Your task to perform on an android device: Open network settings Image 0: 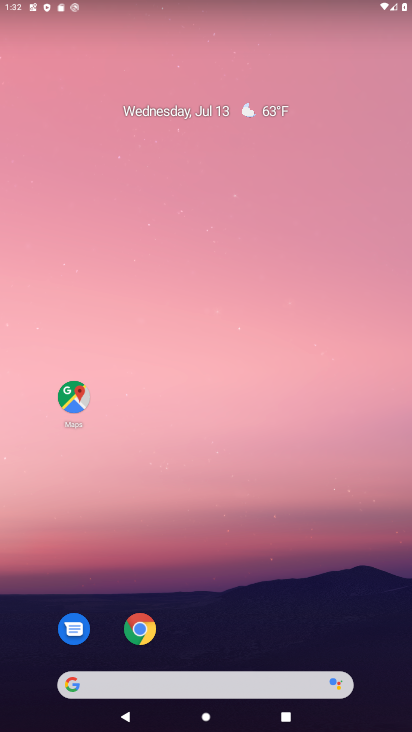
Step 0: drag from (208, 634) to (205, 281)
Your task to perform on an android device: Open network settings Image 1: 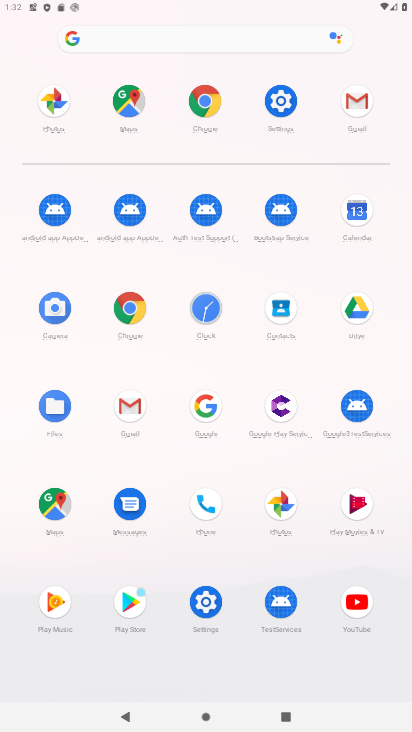
Step 1: click (282, 99)
Your task to perform on an android device: Open network settings Image 2: 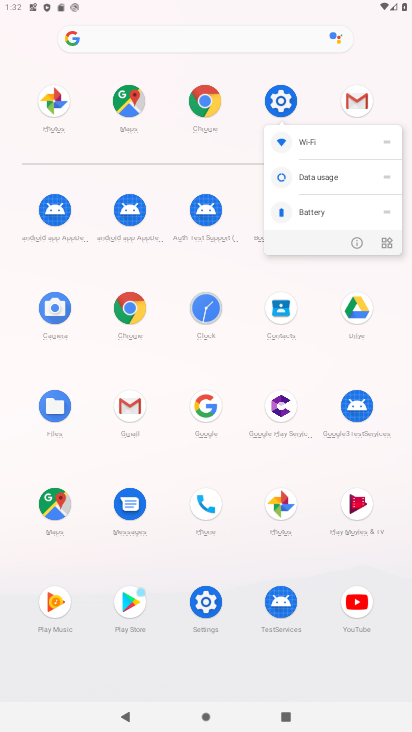
Step 2: click (346, 241)
Your task to perform on an android device: Open network settings Image 3: 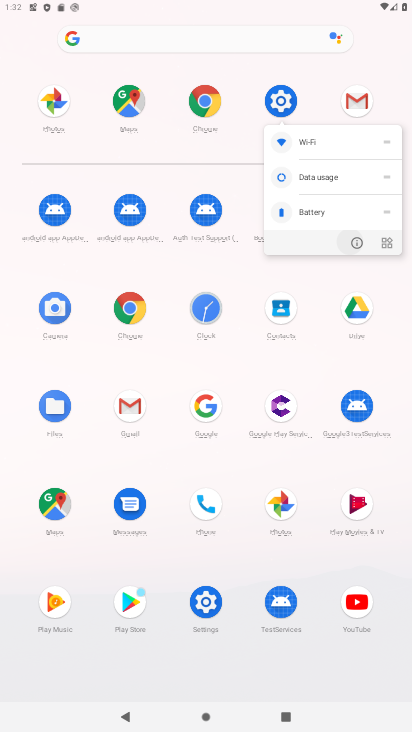
Step 3: click (346, 241)
Your task to perform on an android device: Open network settings Image 4: 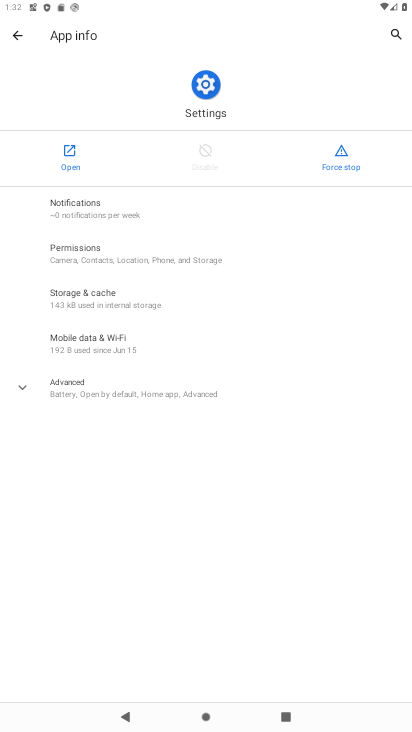
Step 4: click (72, 149)
Your task to perform on an android device: Open network settings Image 5: 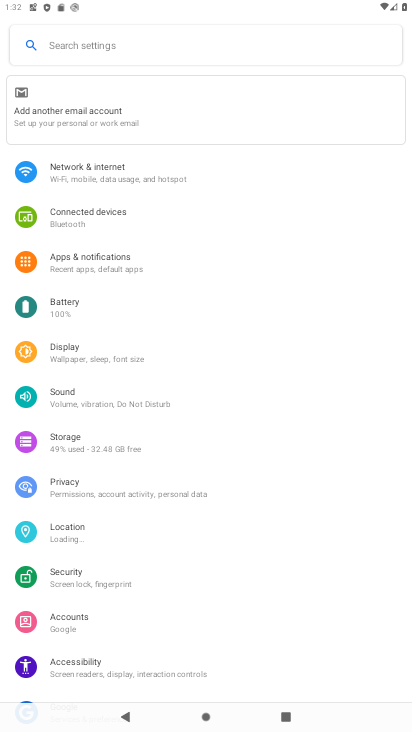
Step 5: drag from (205, 548) to (208, 357)
Your task to perform on an android device: Open network settings Image 6: 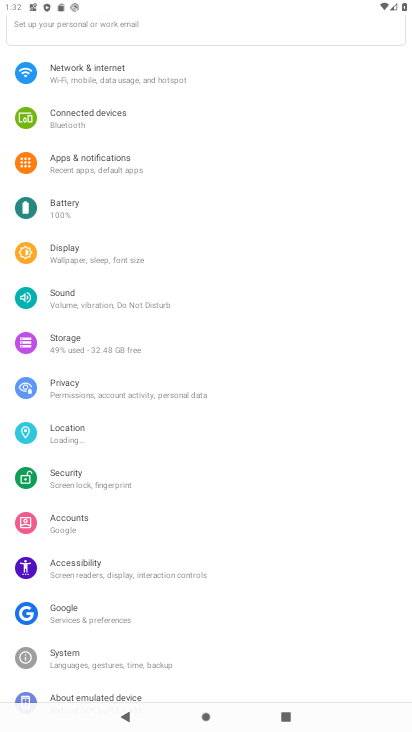
Step 6: drag from (212, 312) to (233, 617)
Your task to perform on an android device: Open network settings Image 7: 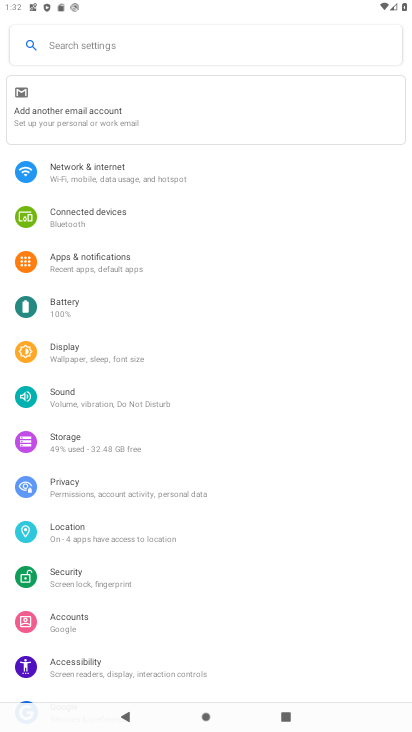
Step 7: click (142, 175)
Your task to perform on an android device: Open network settings Image 8: 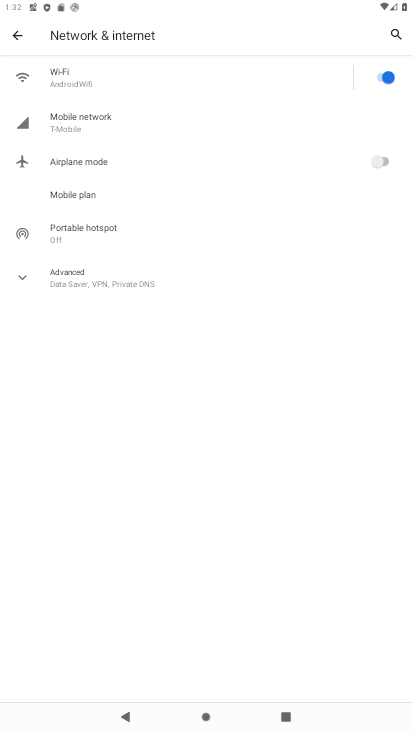
Step 8: click (110, 121)
Your task to perform on an android device: Open network settings Image 9: 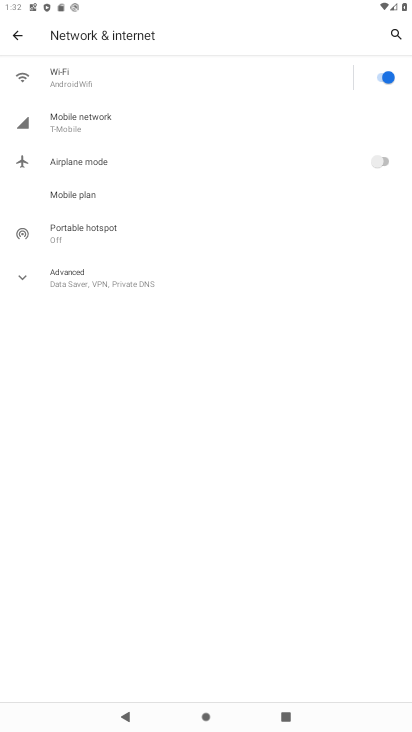
Step 9: click (110, 121)
Your task to perform on an android device: Open network settings Image 10: 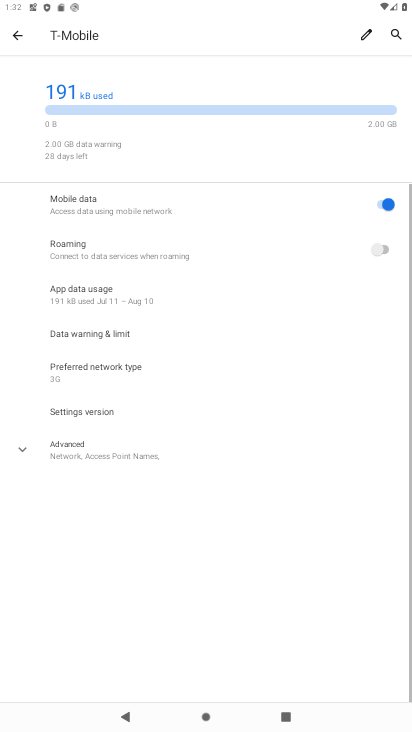
Step 10: task complete